Your task to perform on an android device: turn off picture-in-picture Image 0: 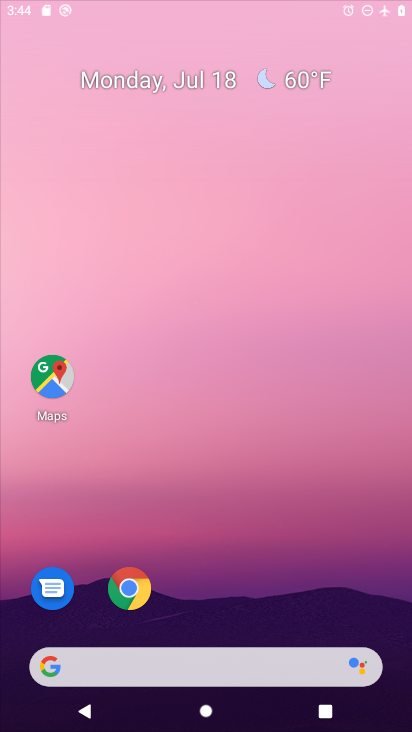
Step 0: press home button
Your task to perform on an android device: turn off picture-in-picture Image 1: 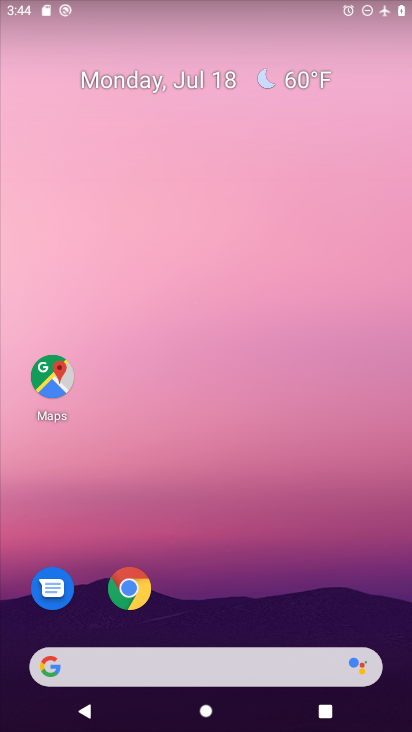
Step 1: click (137, 586)
Your task to perform on an android device: turn off picture-in-picture Image 2: 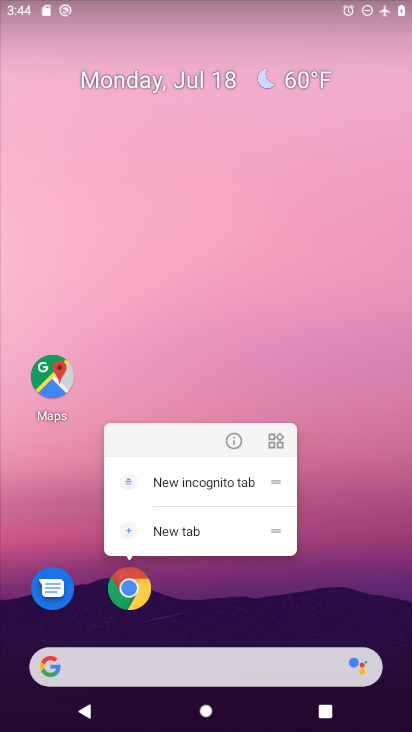
Step 2: click (238, 442)
Your task to perform on an android device: turn off picture-in-picture Image 3: 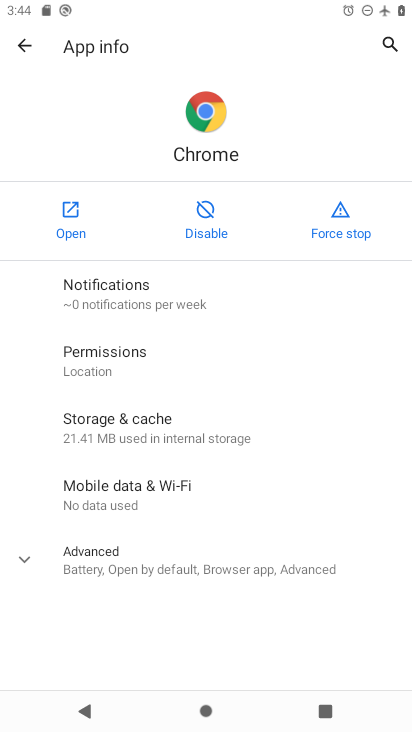
Step 3: click (96, 558)
Your task to perform on an android device: turn off picture-in-picture Image 4: 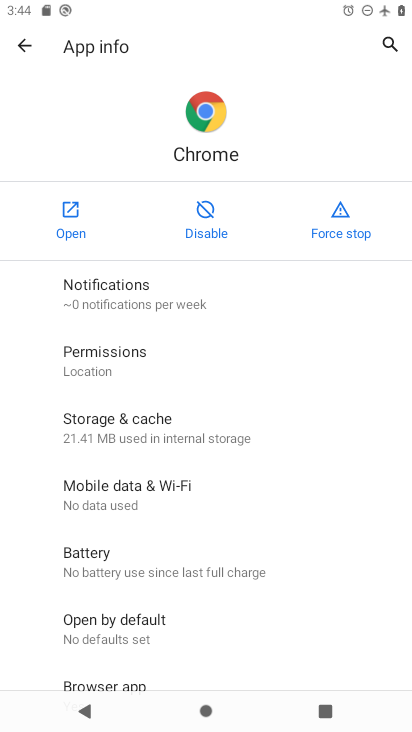
Step 4: drag from (149, 668) to (185, 364)
Your task to perform on an android device: turn off picture-in-picture Image 5: 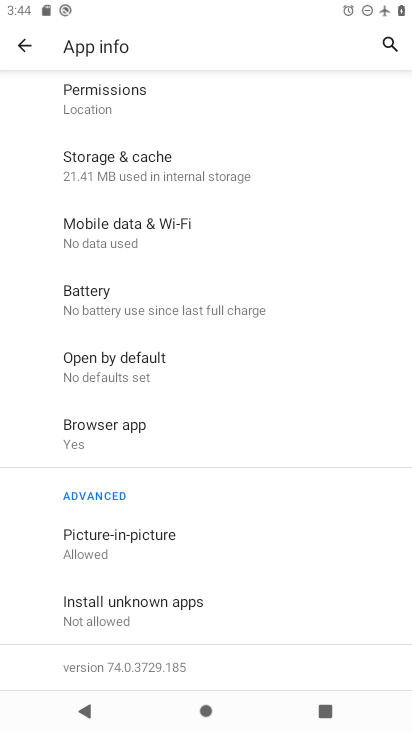
Step 5: click (142, 549)
Your task to perform on an android device: turn off picture-in-picture Image 6: 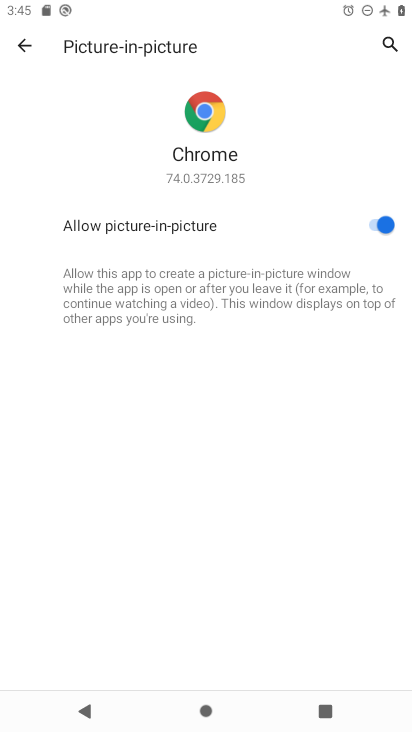
Step 6: click (377, 221)
Your task to perform on an android device: turn off picture-in-picture Image 7: 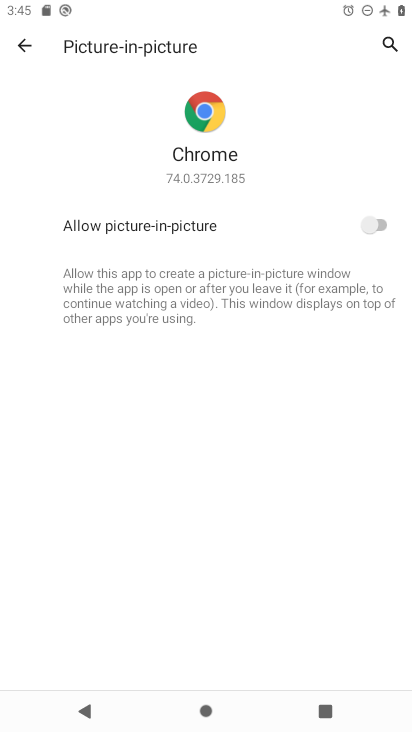
Step 7: task complete